Your task to perform on an android device: Go to CNN.com Image 0: 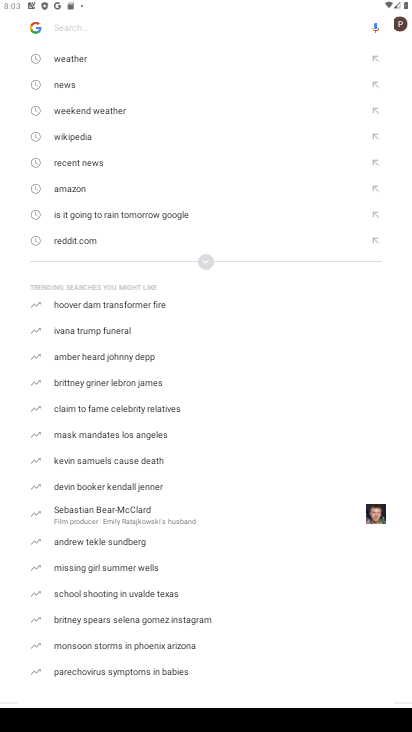
Step 0: type "cnn.com"
Your task to perform on an android device: Go to CNN.com Image 1: 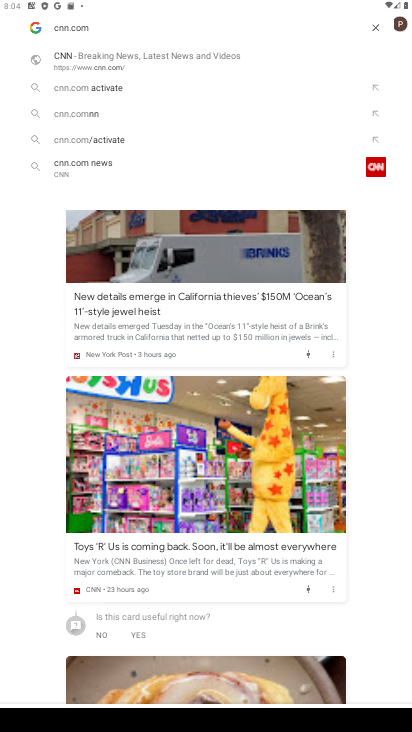
Step 1: click (141, 52)
Your task to perform on an android device: Go to CNN.com Image 2: 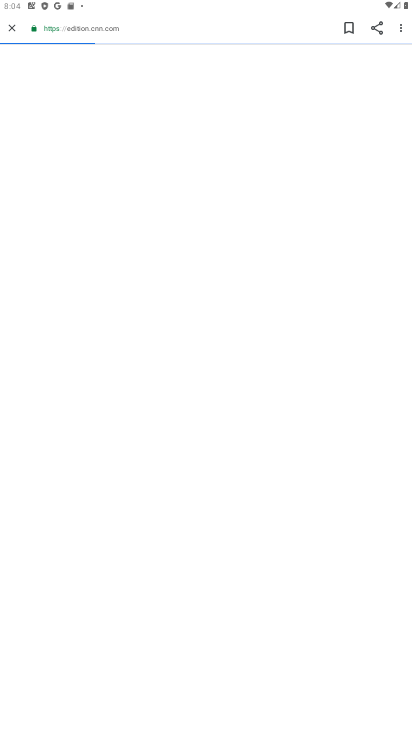
Step 2: task complete